Your task to perform on an android device: What is the news today? Image 0: 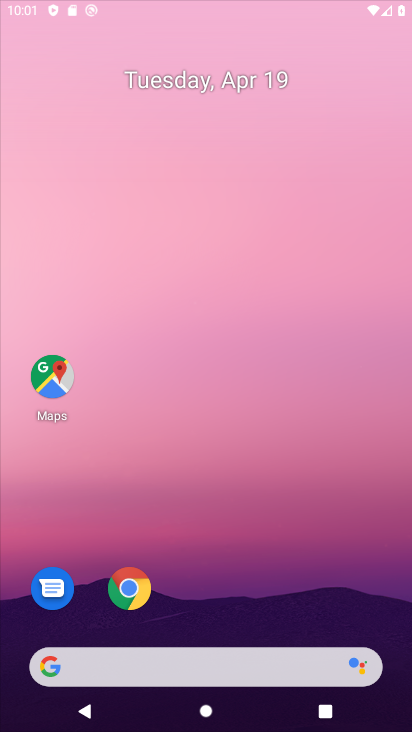
Step 0: click (126, 598)
Your task to perform on an android device: What is the news today? Image 1: 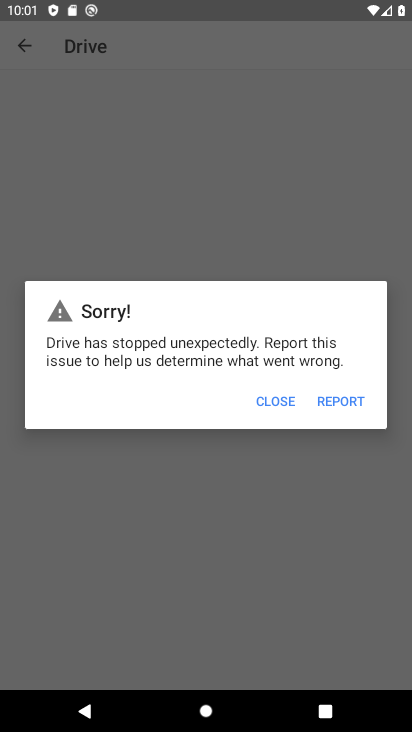
Step 1: task complete